Your task to perform on an android device: turn off smart reply in the gmail app Image 0: 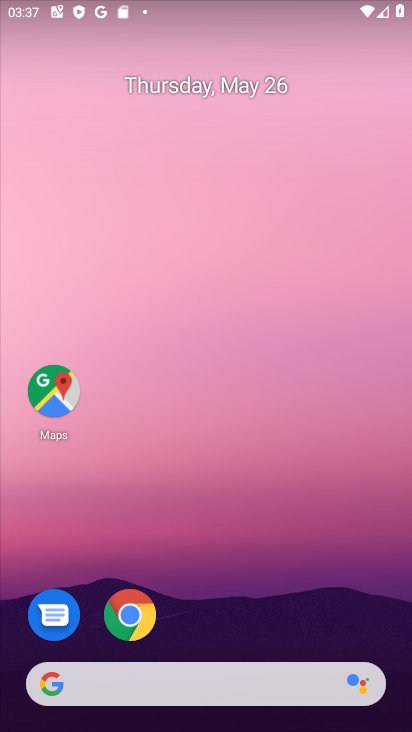
Step 0: drag from (250, 605) to (143, 87)
Your task to perform on an android device: turn off smart reply in the gmail app Image 1: 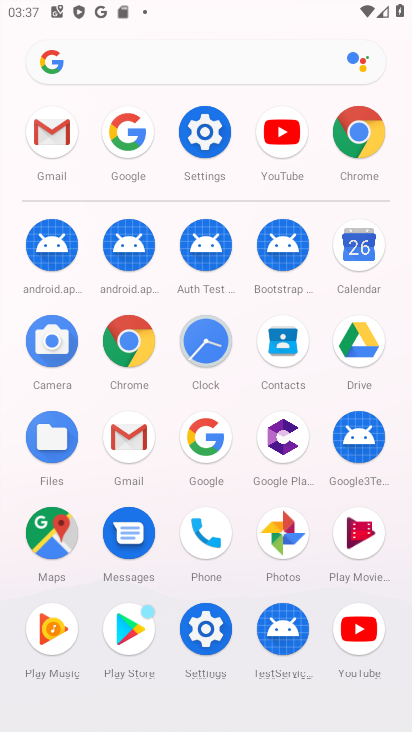
Step 1: click (51, 150)
Your task to perform on an android device: turn off smart reply in the gmail app Image 2: 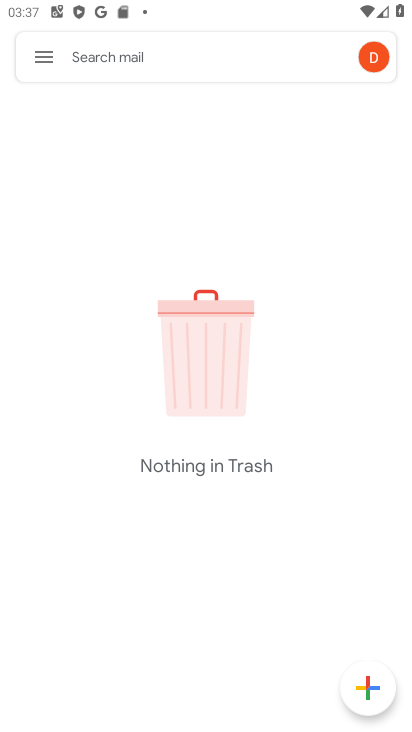
Step 2: click (48, 55)
Your task to perform on an android device: turn off smart reply in the gmail app Image 3: 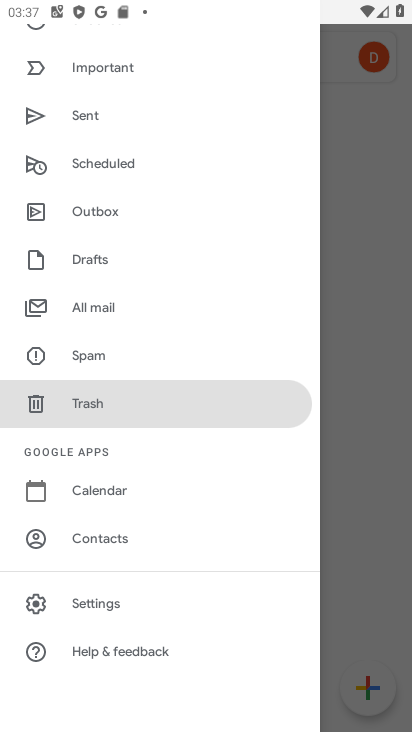
Step 3: click (106, 612)
Your task to perform on an android device: turn off smart reply in the gmail app Image 4: 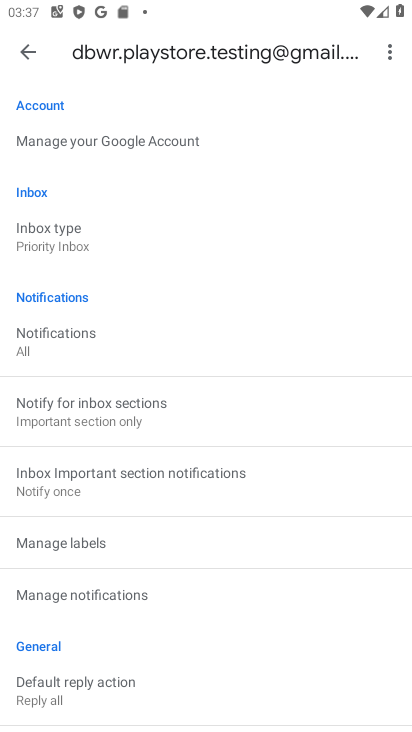
Step 4: drag from (225, 601) to (227, 123)
Your task to perform on an android device: turn off smart reply in the gmail app Image 5: 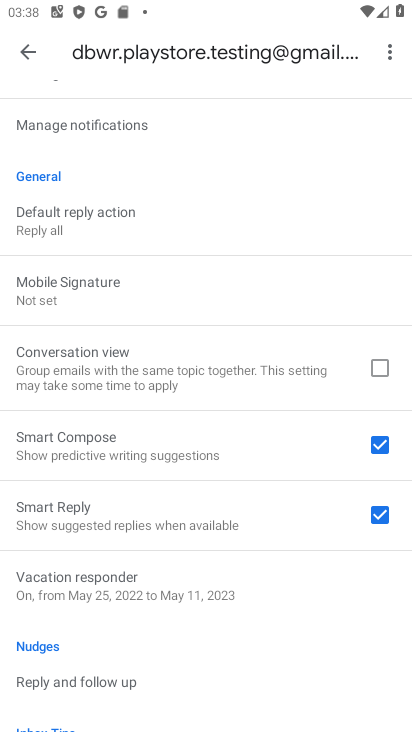
Step 5: click (376, 518)
Your task to perform on an android device: turn off smart reply in the gmail app Image 6: 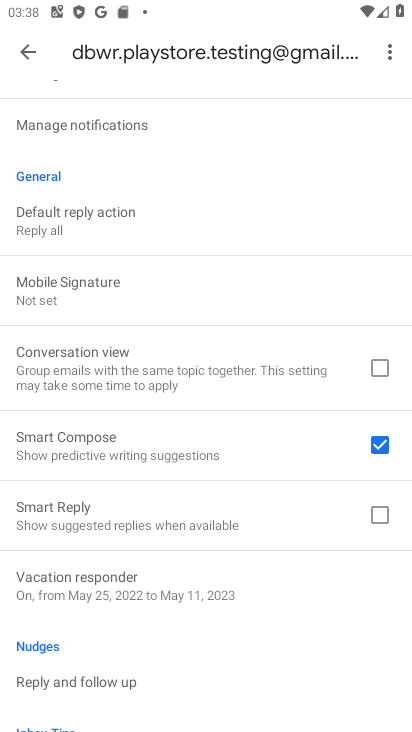
Step 6: task complete